Your task to perform on an android device: toggle wifi Image 0: 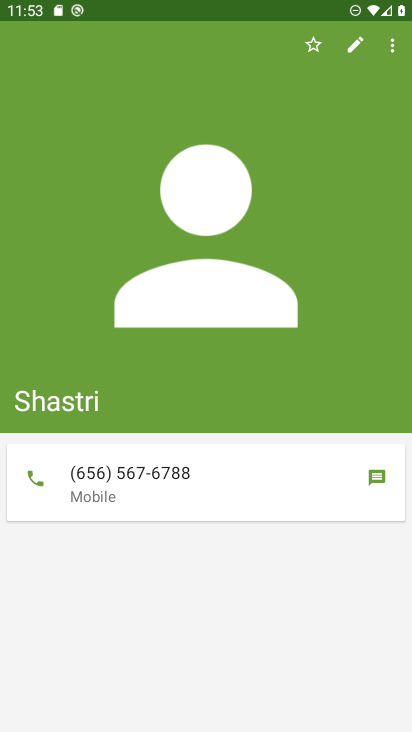
Step 0: press home button
Your task to perform on an android device: toggle wifi Image 1: 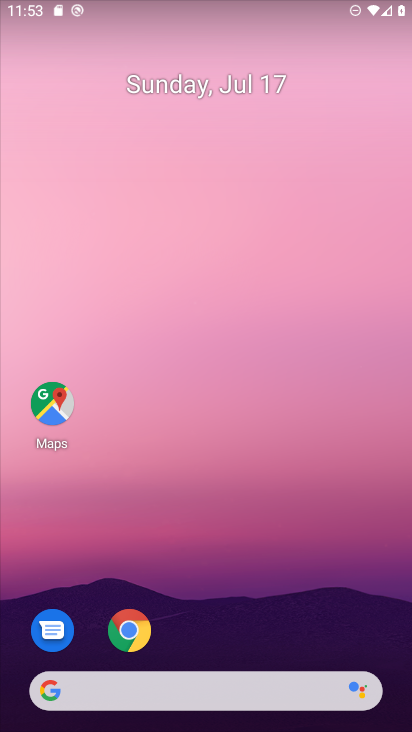
Step 1: drag from (193, 443) to (211, 162)
Your task to perform on an android device: toggle wifi Image 2: 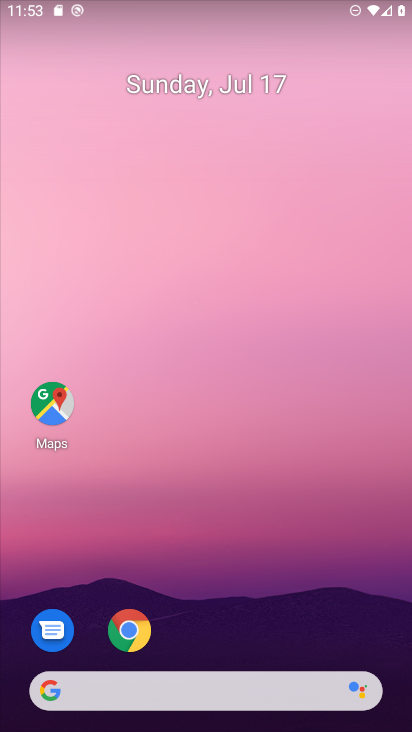
Step 2: drag from (202, 586) to (257, 56)
Your task to perform on an android device: toggle wifi Image 3: 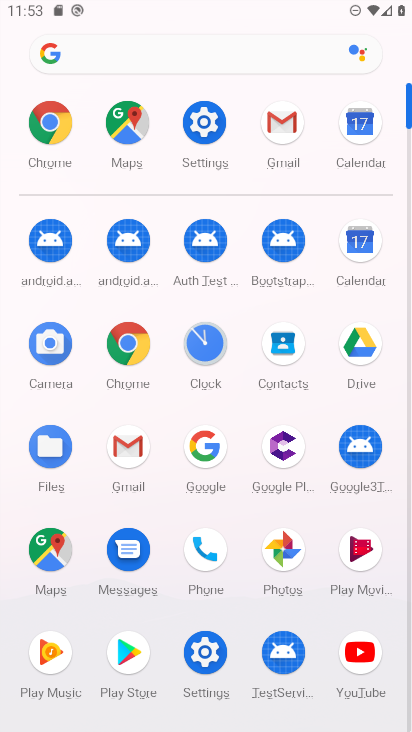
Step 3: click (205, 120)
Your task to perform on an android device: toggle wifi Image 4: 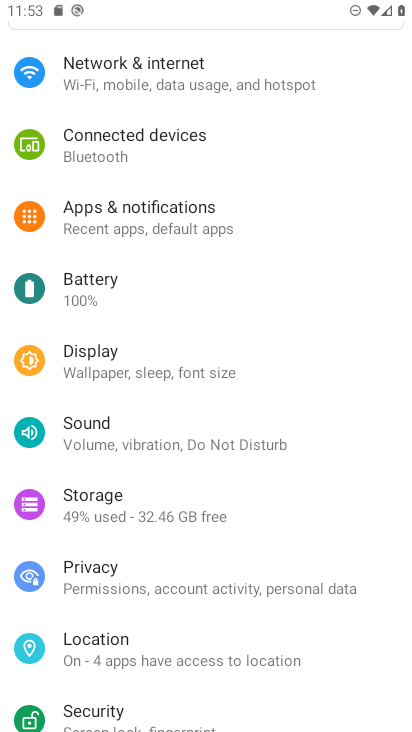
Step 4: click (202, 70)
Your task to perform on an android device: toggle wifi Image 5: 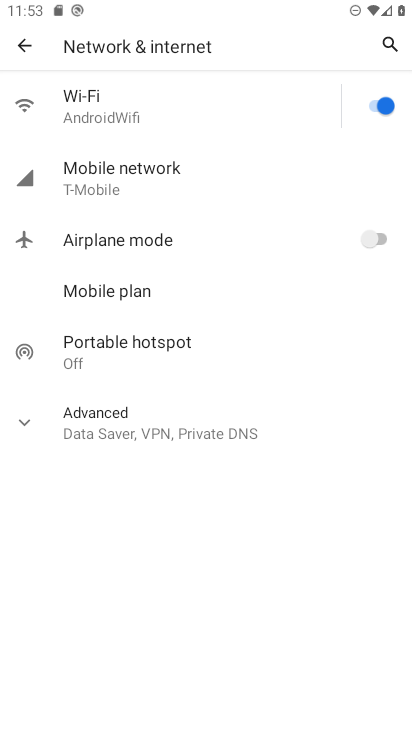
Step 5: click (374, 107)
Your task to perform on an android device: toggle wifi Image 6: 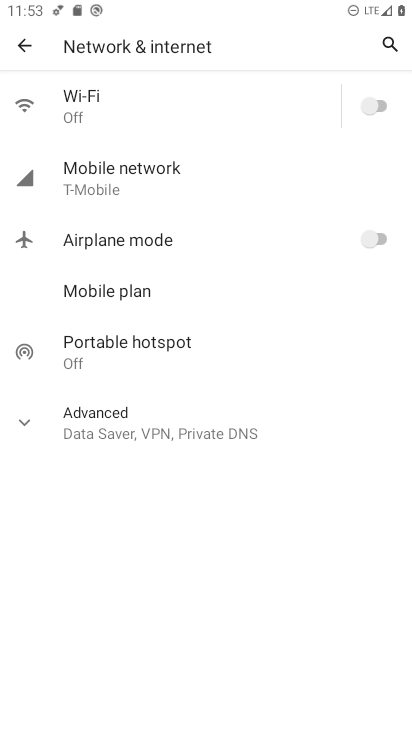
Step 6: task complete